Your task to perform on an android device: stop showing notifications on the lock screen Image 0: 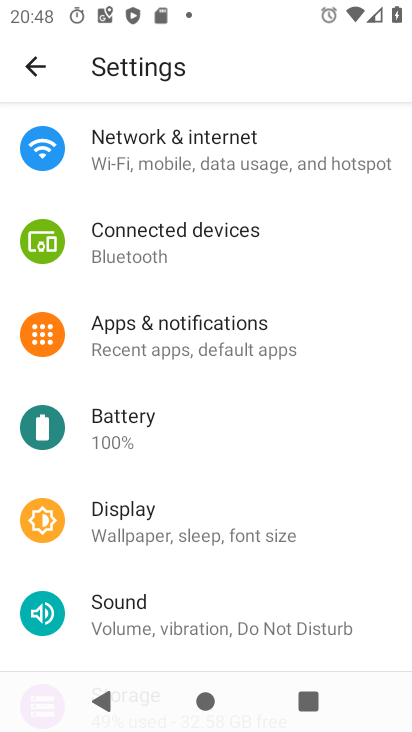
Step 0: click (245, 328)
Your task to perform on an android device: stop showing notifications on the lock screen Image 1: 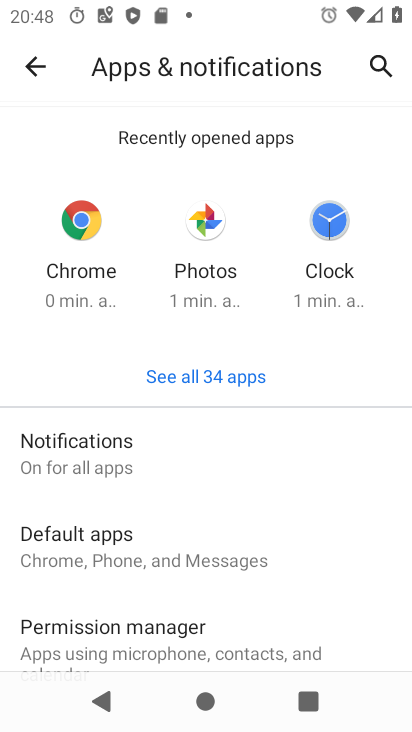
Step 1: click (110, 435)
Your task to perform on an android device: stop showing notifications on the lock screen Image 2: 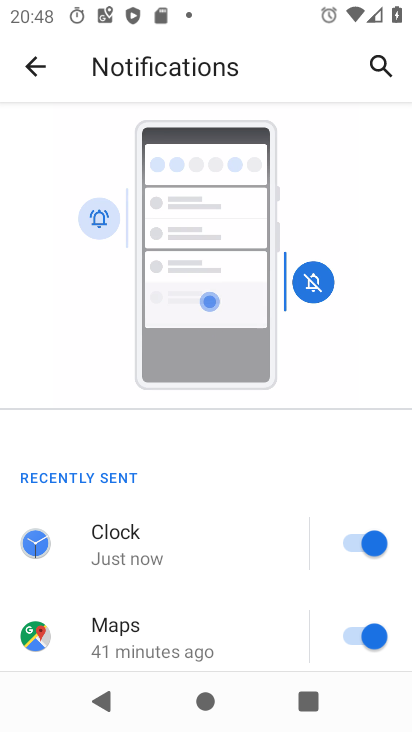
Step 2: drag from (248, 588) to (315, 34)
Your task to perform on an android device: stop showing notifications on the lock screen Image 3: 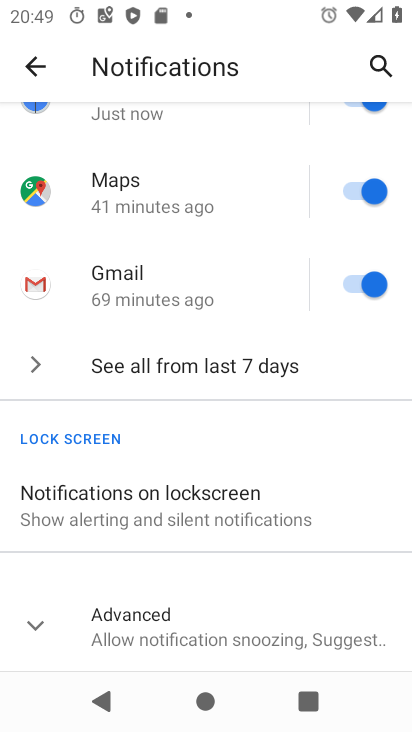
Step 3: click (195, 507)
Your task to perform on an android device: stop showing notifications on the lock screen Image 4: 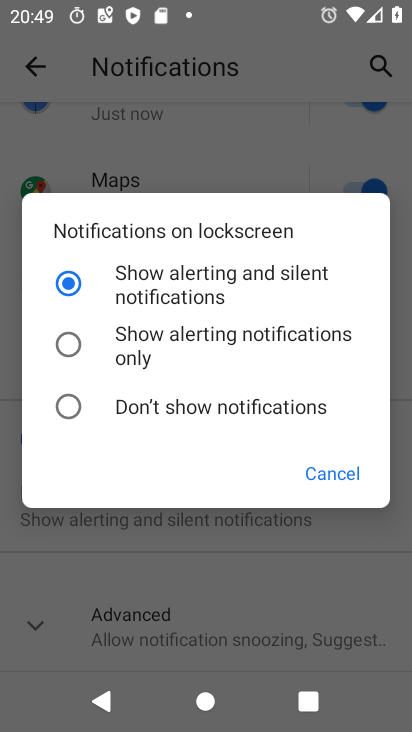
Step 4: click (65, 391)
Your task to perform on an android device: stop showing notifications on the lock screen Image 5: 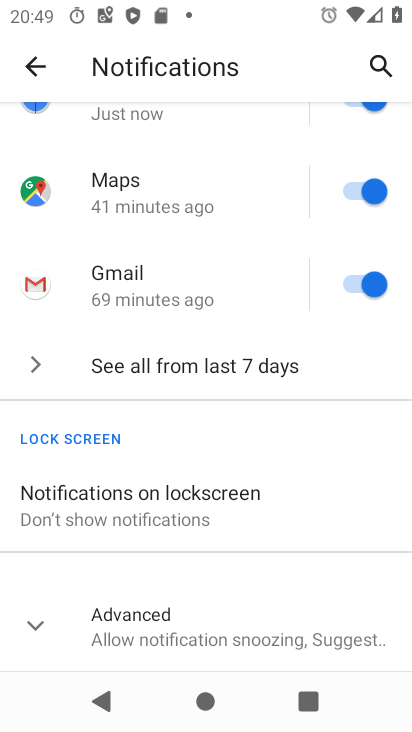
Step 5: task complete